Your task to perform on an android device: Open network settings Image 0: 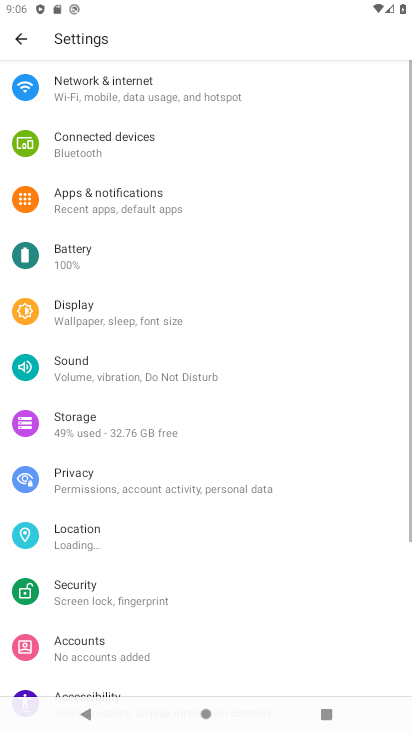
Step 0: click (241, 100)
Your task to perform on an android device: Open network settings Image 1: 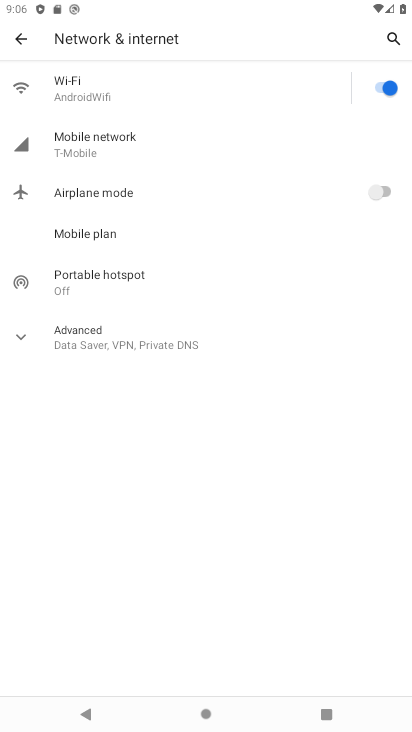
Step 1: click (216, 145)
Your task to perform on an android device: Open network settings Image 2: 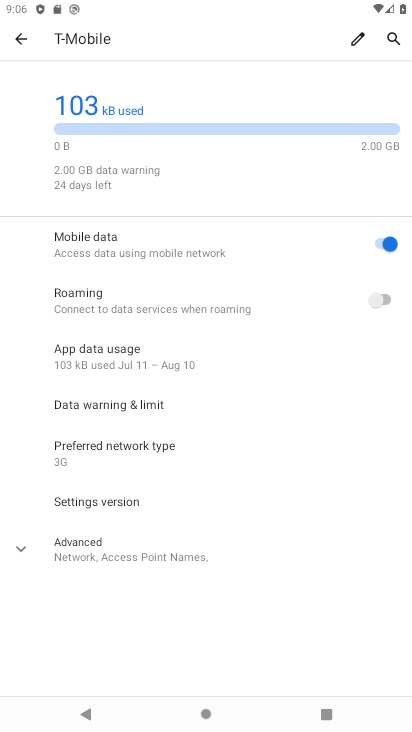
Step 2: task complete